Your task to perform on an android device: add a contact Image 0: 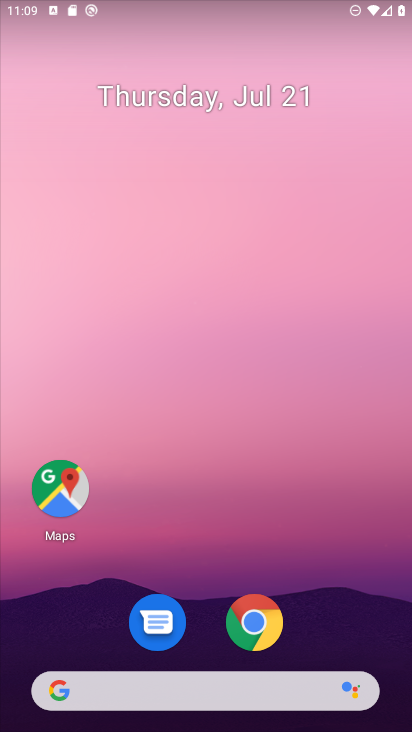
Step 0: drag from (304, 720) to (300, 124)
Your task to perform on an android device: add a contact Image 1: 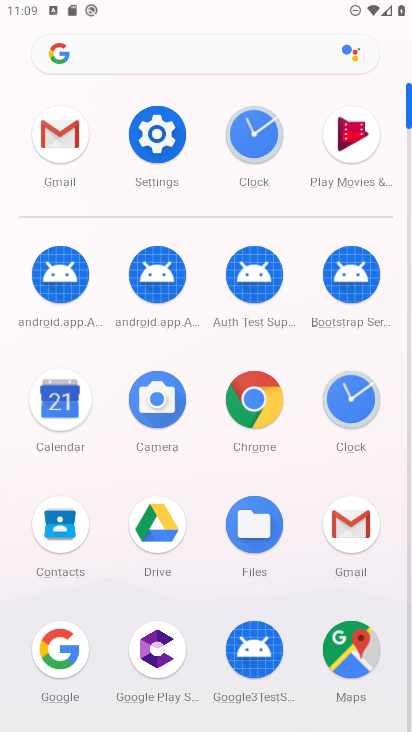
Step 1: click (55, 541)
Your task to perform on an android device: add a contact Image 2: 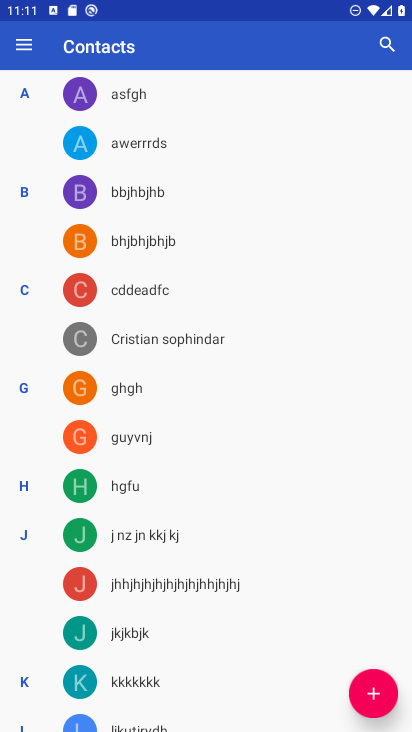
Step 2: click (376, 696)
Your task to perform on an android device: add a contact Image 3: 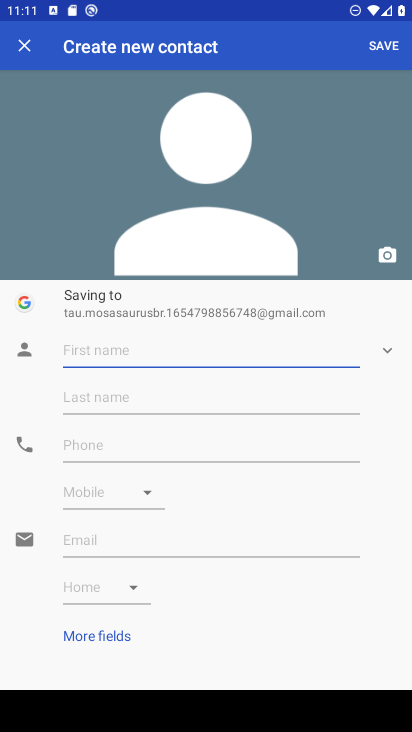
Step 3: type "gjfgj"
Your task to perform on an android device: add a contact Image 4: 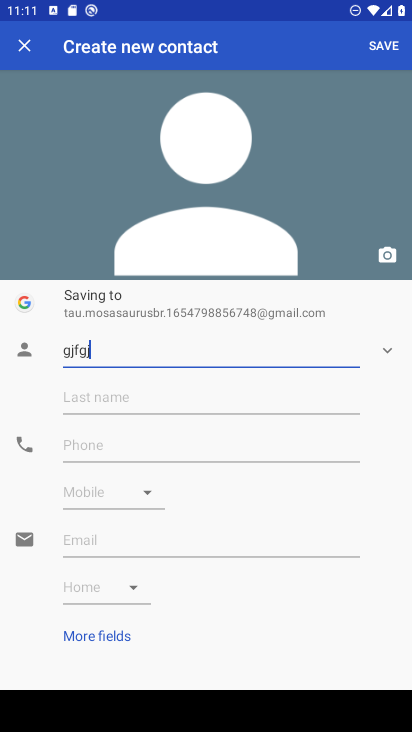
Step 4: click (179, 439)
Your task to perform on an android device: add a contact Image 5: 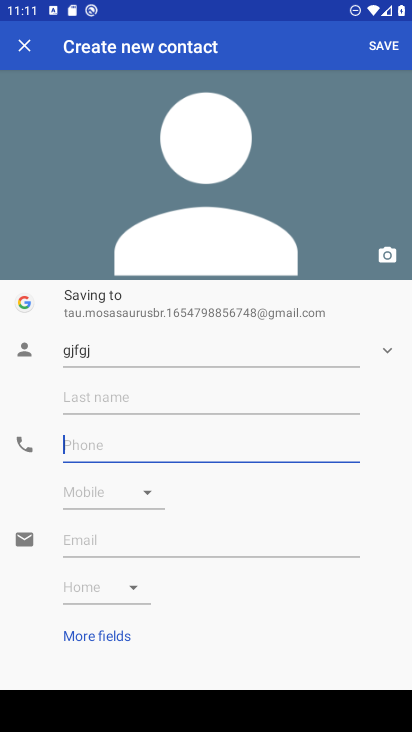
Step 5: type "587"
Your task to perform on an android device: add a contact Image 6: 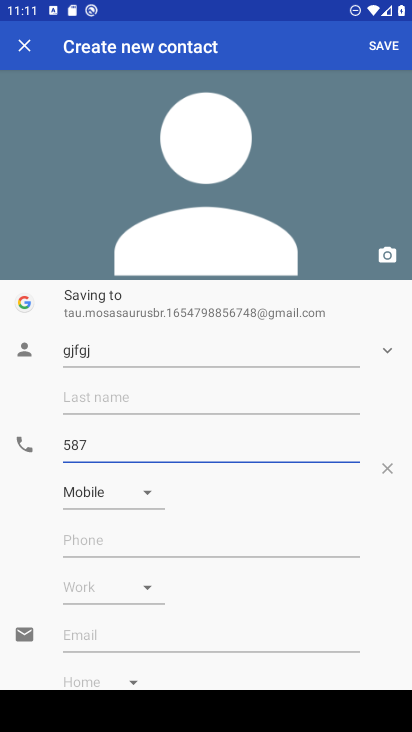
Step 6: click (390, 42)
Your task to perform on an android device: add a contact Image 7: 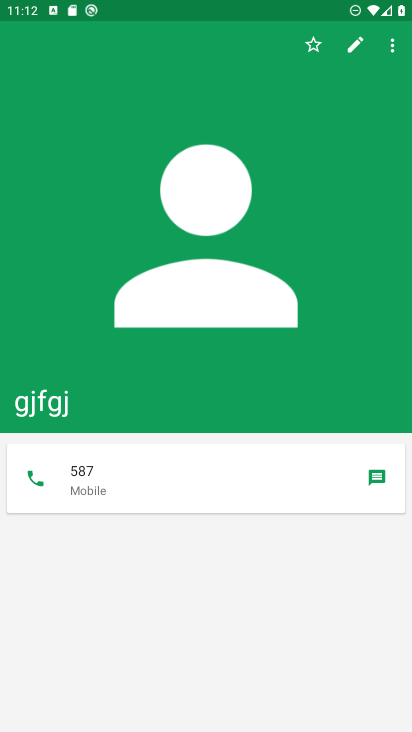
Step 7: task complete